Your task to perform on an android device: Search for a small bookcase on Ikea.com Image 0: 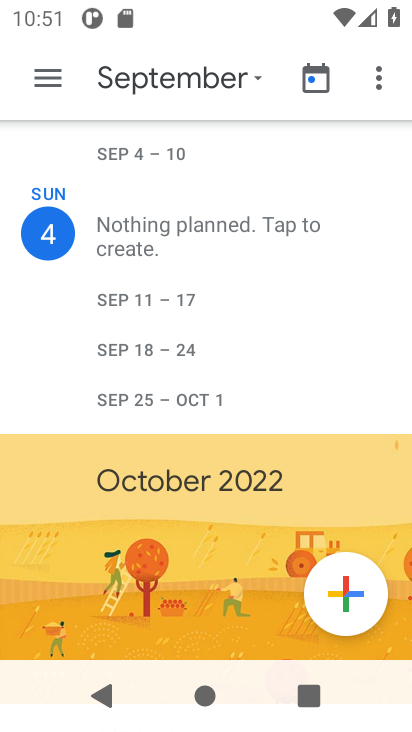
Step 0: task complete